Your task to perform on an android device: Open calendar and show me the fourth week of next month Image 0: 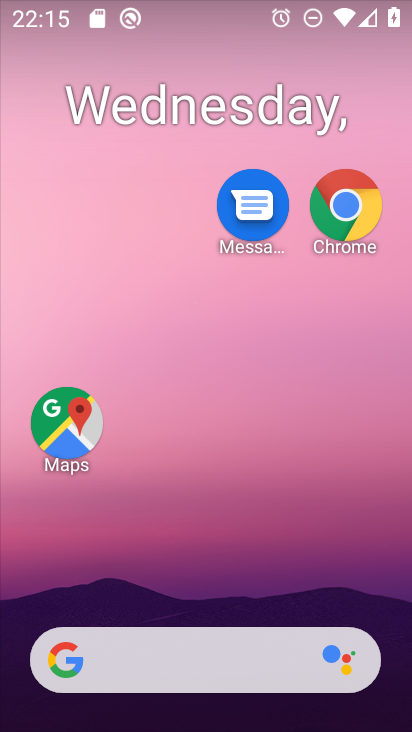
Step 0: drag from (191, 377) to (205, 142)
Your task to perform on an android device: Open calendar and show me the fourth week of next month Image 1: 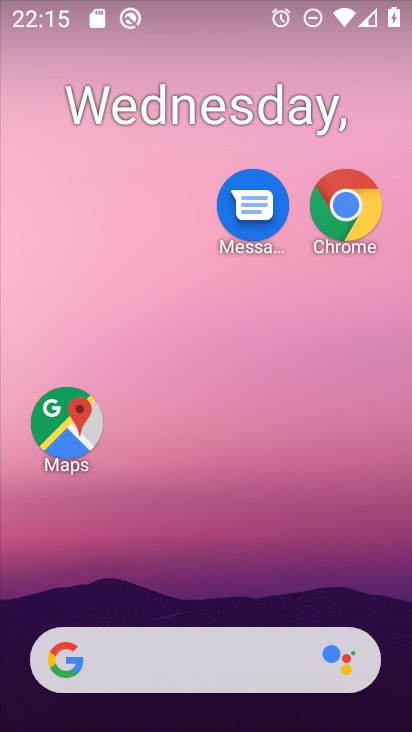
Step 1: drag from (215, 578) to (253, 0)
Your task to perform on an android device: Open calendar and show me the fourth week of next month Image 2: 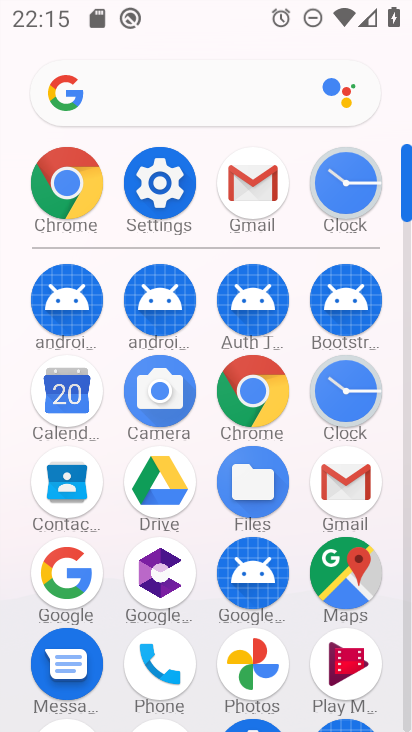
Step 2: click (50, 390)
Your task to perform on an android device: Open calendar and show me the fourth week of next month Image 3: 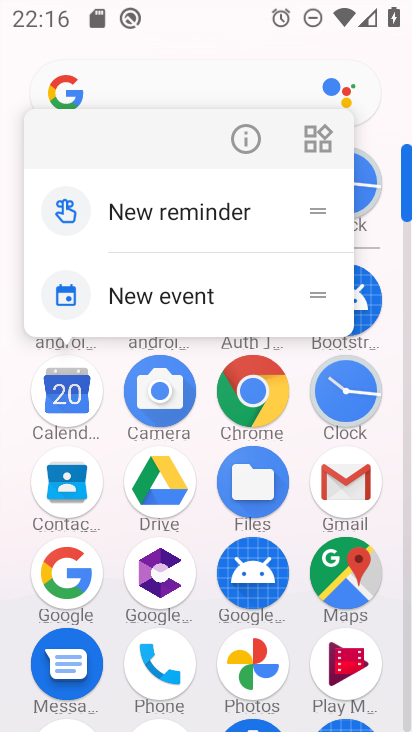
Step 3: click (266, 138)
Your task to perform on an android device: Open calendar and show me the fourth week of next month Image 4: 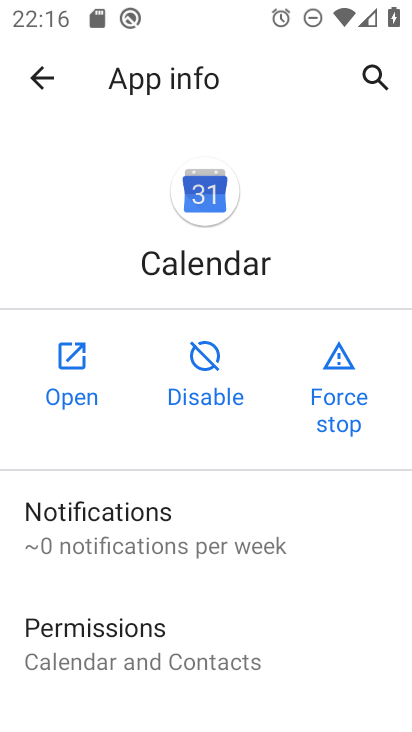
Step 4: click (73, 351)
Your task to perform on an android device: Open calendar and show me the fourth week of next month Image 5: 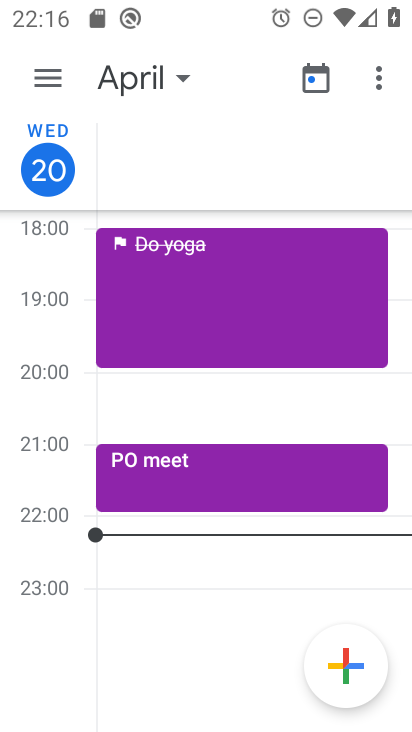
Step 5: click (150, 88)
Your task to perform on an android device: Open calendar and show me the fourth week of next month Image 6: 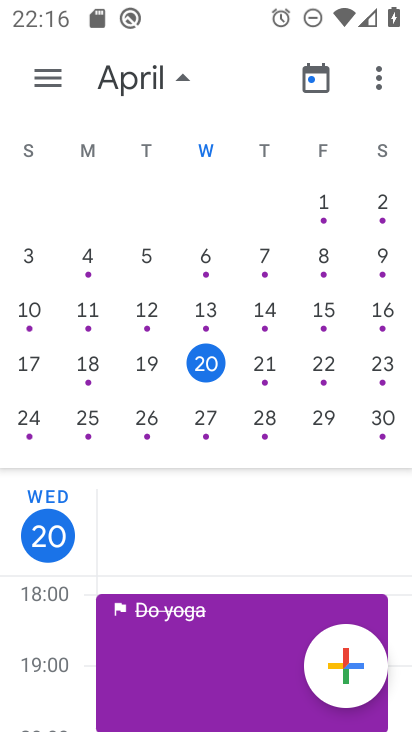
Step 6: drag from (329, 308) to (3, 291)
Your task to perform on an android device: Open calendar and show me the fourth week of next month Image 7: 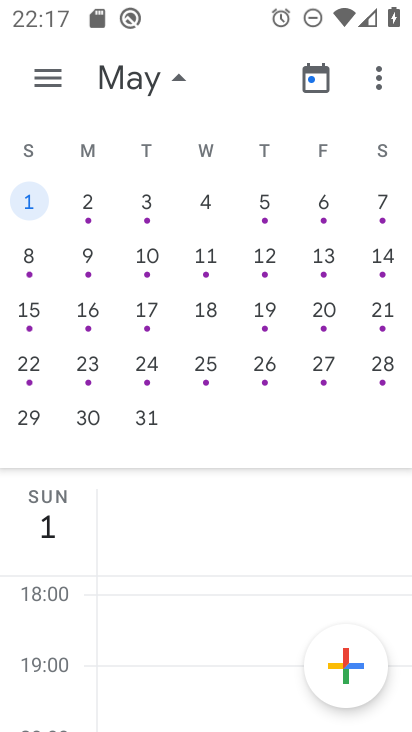
Step 7: click (188, 361)
Your task to perform on an android device: Open calendar and show me the fourth week of next month Image 8: 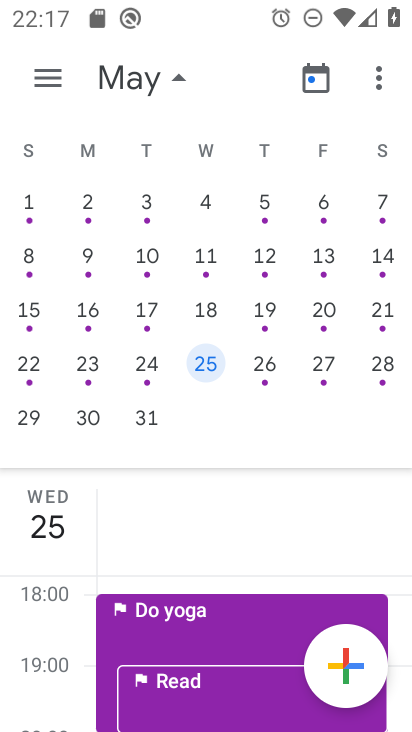
Step 8: task complete